Your task to perform on an android device: Open location settings Image 0: 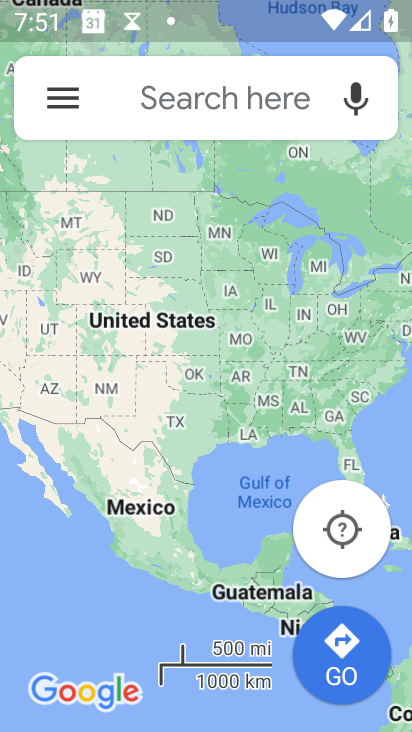
Step 0: press home button
Your task to perform on an android device: Open location settings Image 1: 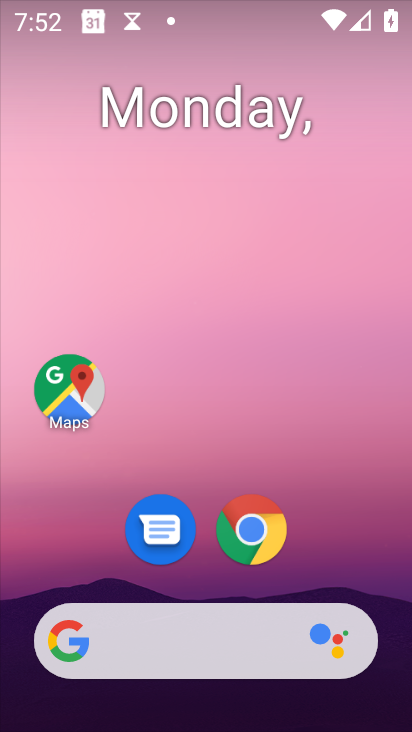
Step 1: drag from (47, 618) to (242, 155)
Your task to perform on an android device: Open location settings Image 2: 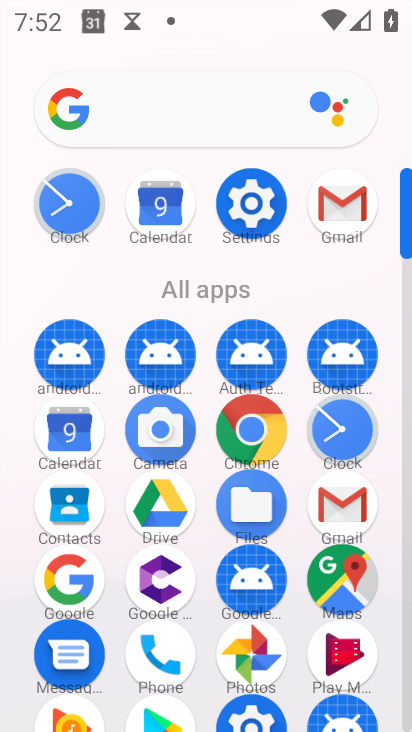
Step 2: click (267, 212)
Your task to perform on an android device: Open location settings Image 3: 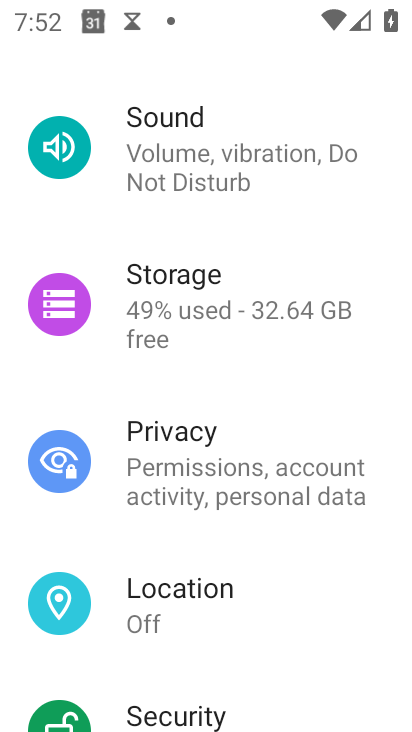
Step 3: click (111, 594)
Your task to perform on an android device: Open location settings Image 4: 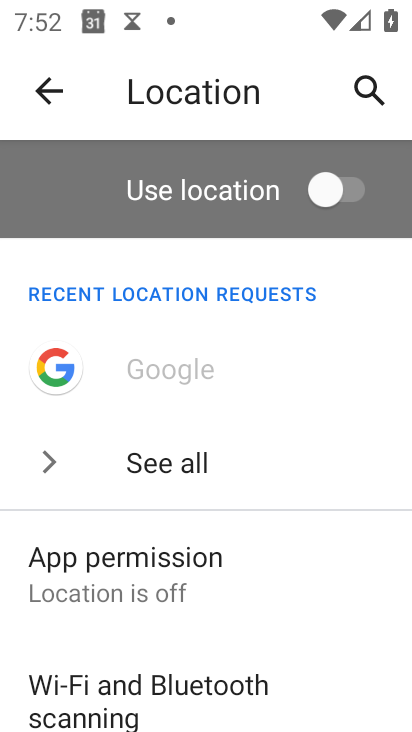
Step 4: task complete